Your task to perform on an android device: open app "Roku - Official Remote Control" (install if not already installed), go to login, and select forgot password Image 0: 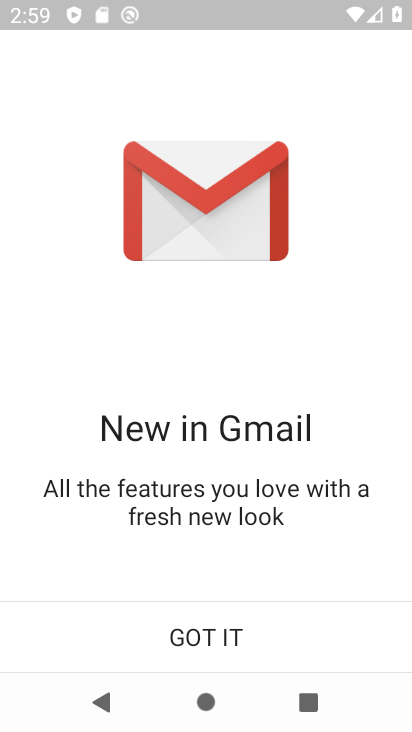
Step 0: press home button
Your task to perform on an android device: open app "Roku - Official Remote Control" (install if not already installed), go to login, and select forgot password Image 1: 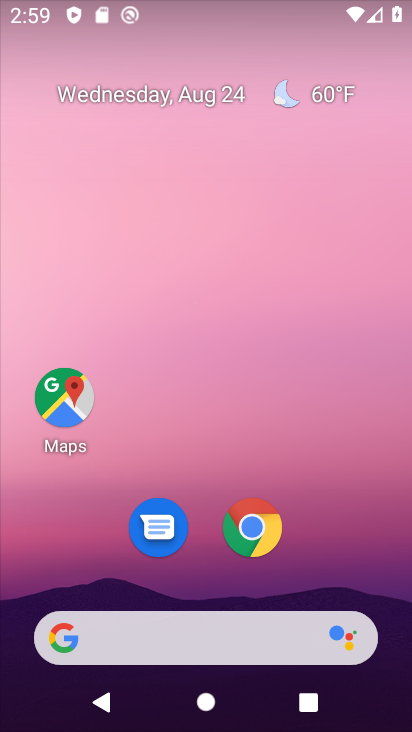
Step 1: drag from (340, 560) to (193, 1)
Your task to perform on an android device: open app "Roku - Official Remote Control" (install if not already installed), go to login, and select forgot password Image 2: 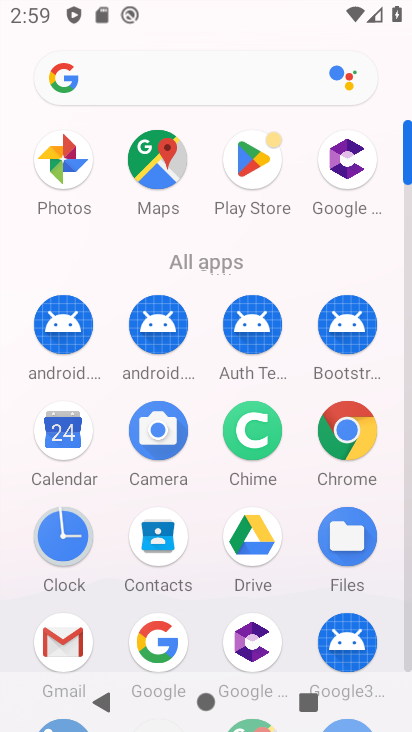
Step 2: click (240, 153)
Your task to perform on an android device: open app "Roku - Official Remote Control" (install if not already installed), go to login, and select forgot password Image 3: 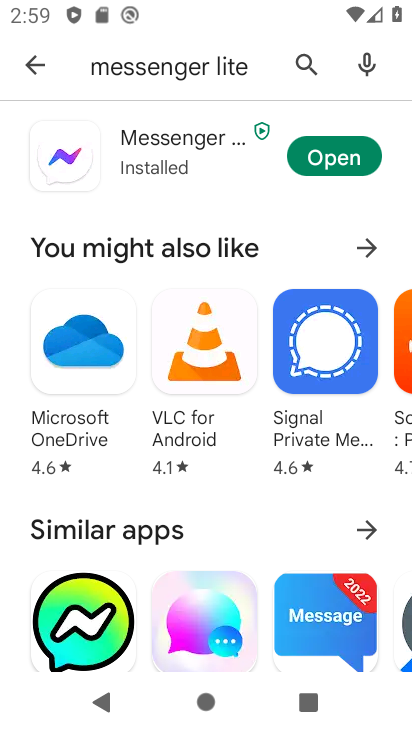
Step 3: click (318, 64)
Your task to perform on an android device: open app "Roku - Official Remote Control" (install if not already installed), go to login, and select forgot password Image 4: 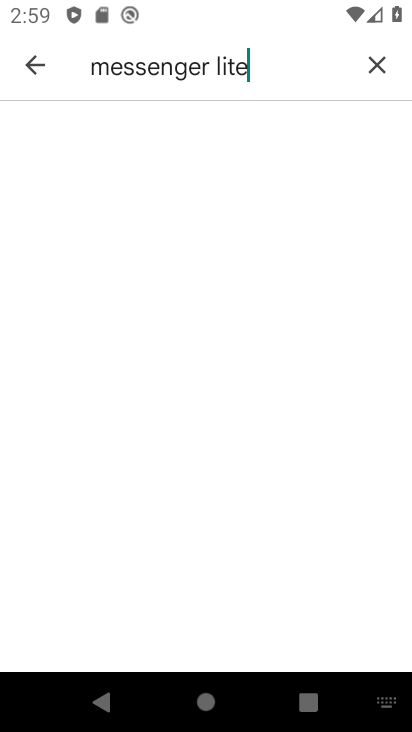
Step 4: click (371, 64)
Your task to perform on an android device: open app "Roku - Official Remote Control" (install if not already installed), go to login, and select forgot password Image 5: 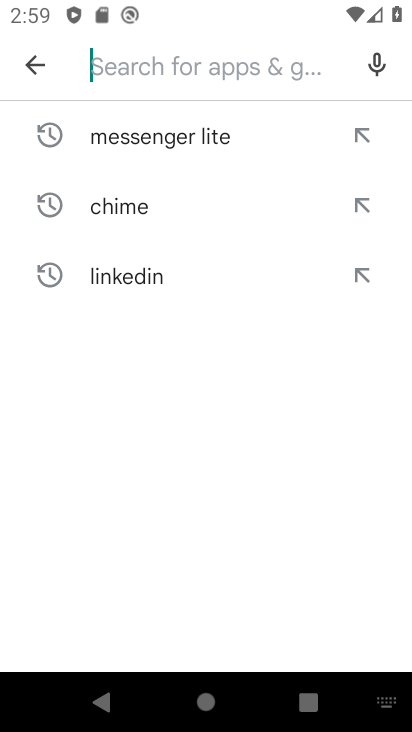
Step 5: type "roku"
Your task to perform on an android device: open app "Roku - Official Remote Control" (install if not already installed), go to login, and select forgot password Image 6: 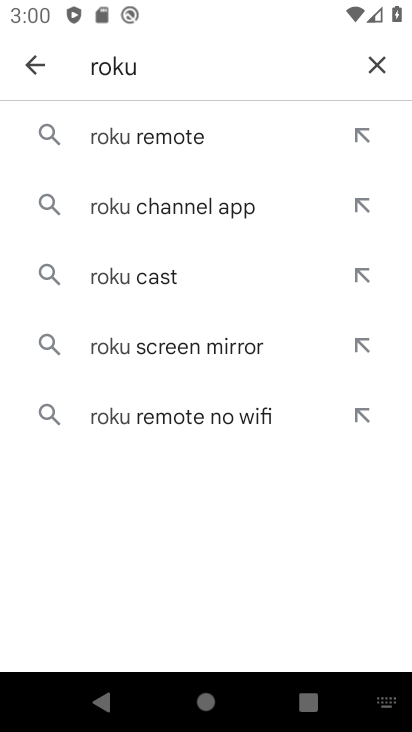
Step 6: click (126, 160)
Your task to perform on an android device: open app "Roku - Official Remote Control" (install if not already installed), go to login, and select forgot password Image 7: 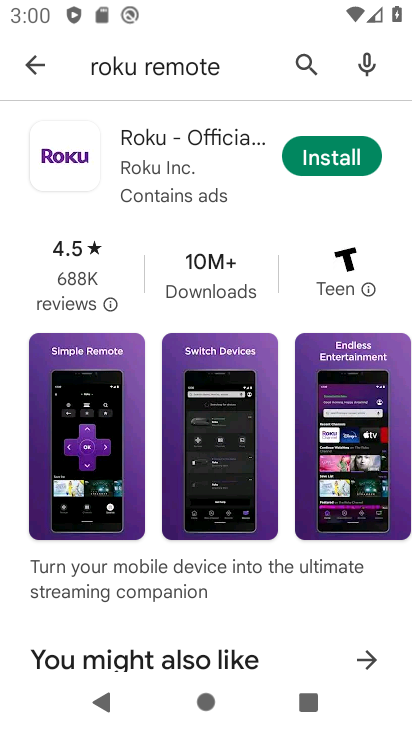
Step 7: click (299, 155)
Your task to perform on an android device: open app "Roku - Official Remote Control" (install if not already installed), go to login, and select forgot password Image 8: 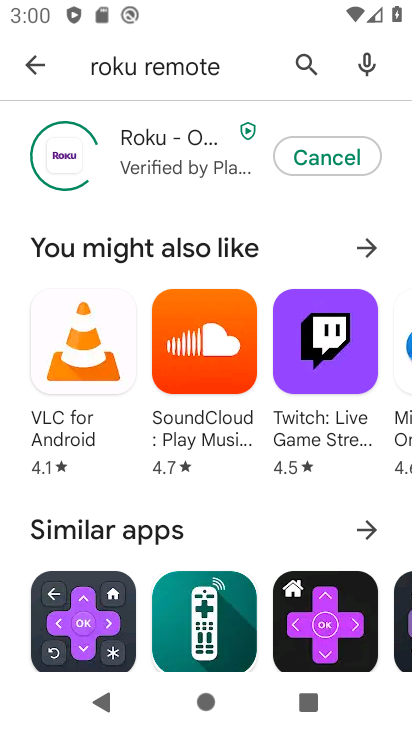
Step 8: task complete